Your task to perform on an android device: toggle data saver in the chrome app Image 0: 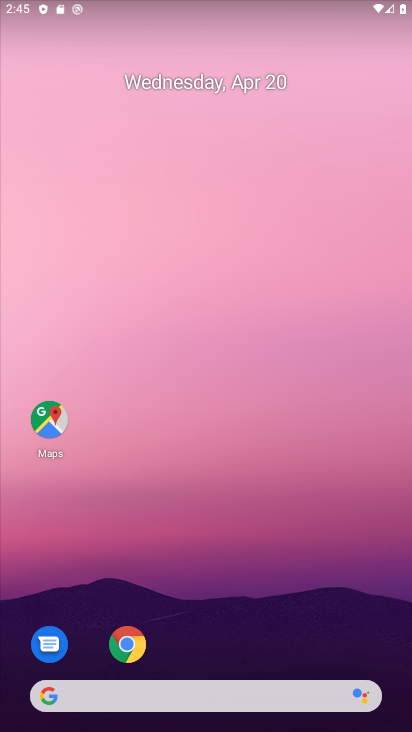
Step 0: click (145, 645)
Your task to perform on an android device: toggle data saver in the chrome app Image 1: 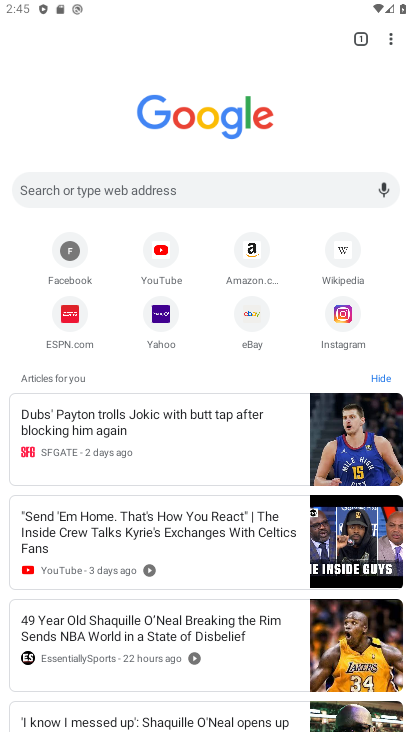
Step 1: click (390, 44)
Your task to perform on an android device: toggle data saver in the chrome app Image 2: 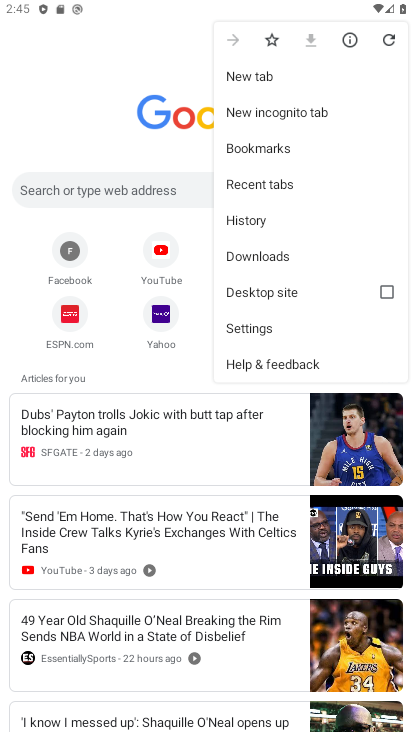
Step 2: click (271, 325)
Your task to perform on an android device: toggle data saver in the chrome app Image 3: 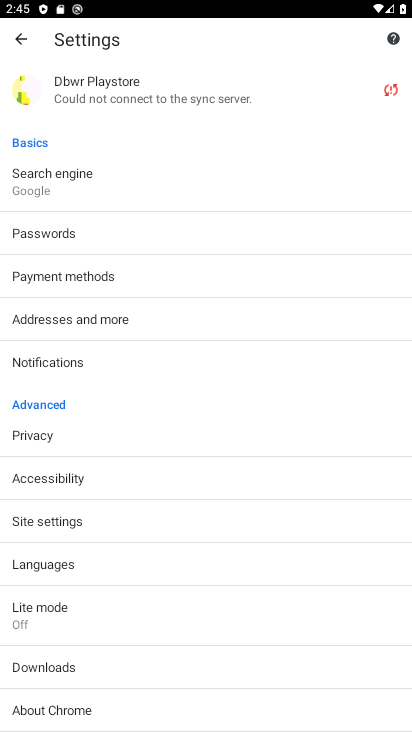
Step 3: click (67, 600)
Your task to perform on an android device: toggle data saver in the chrome app Image 4: 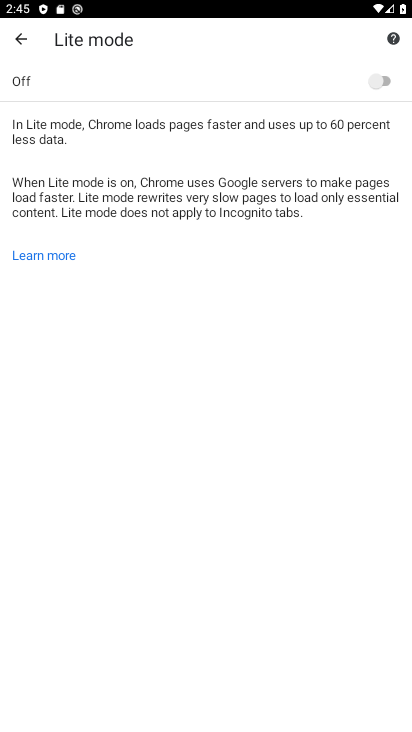
Step 4: click (377, 78)
Your task to perform on an android device: toggle data saver in the chrome app Image 5: 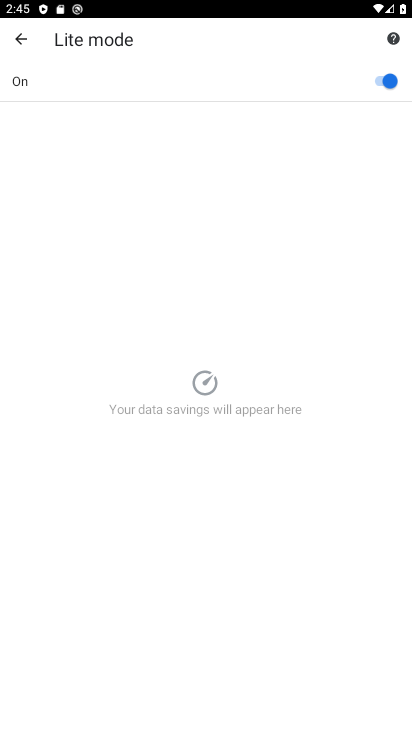
Step 5: task complete